Your task to perform on an android device: What's the news this afternoon? Image 0: 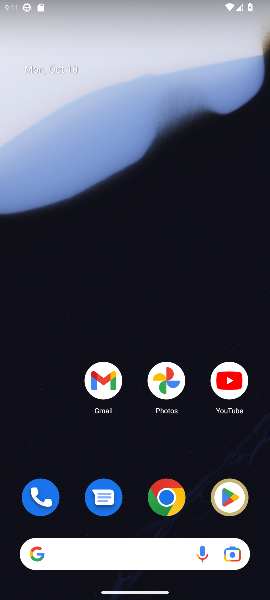
Step 0: drag from (125, 497) to (127, 132)
Your task to perform on an android device: What's the news this afternoon? Image 1: 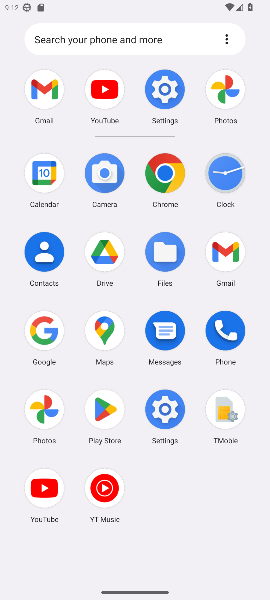
Step 1: click (37, 322)
Your task to perform on an android device: What's the news this afternoon? Image 2: 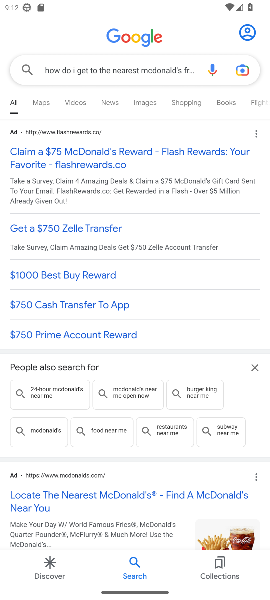
Step 2: click (150, 69)
Your task to perform on an android device: What's the news this afternoon? Image 3: 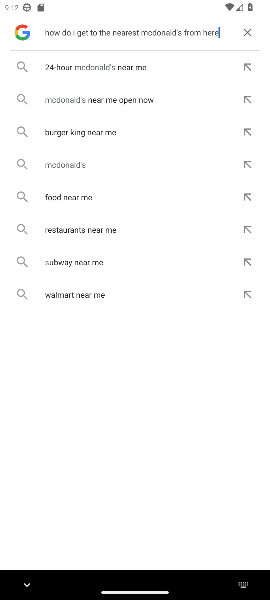
Step 3: click (247, 30)
Your task to perform on an android device: What's the news this afternoon? Image 4: 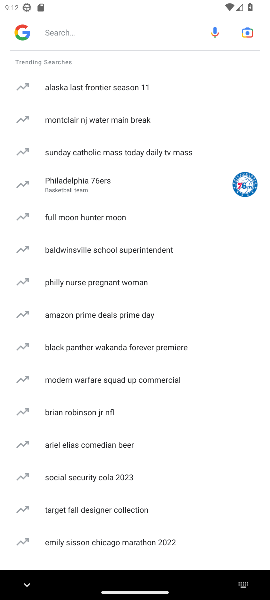
Step 4: click (99, 38)
Your task to perform on an android device: What's the news this afternoon? Image 5: 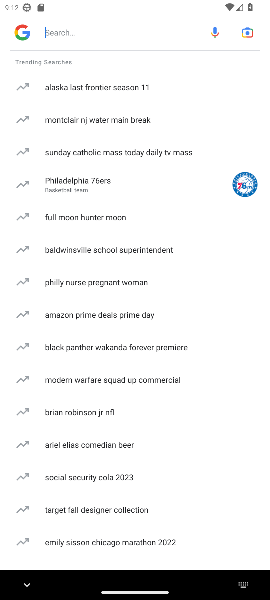
Step 5: click (99, 38)
Your task to perform on an android device: What's the news this afternoon? Image 6: 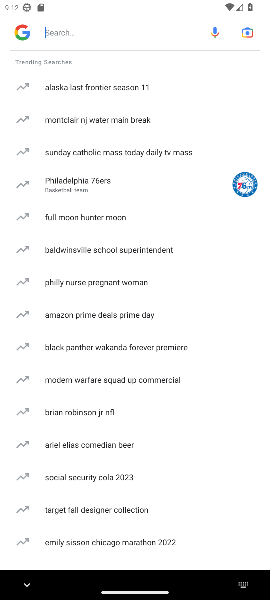
Step 6: type "What's the news this afternoon? "
Your task to perform on an android device: What's the news this afternoon? Image 7: 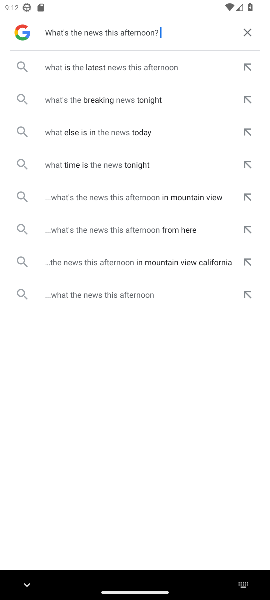
Step 7: click (111, 61)
Your task to perform on an android device: What's the news this afternoon? Image 8: 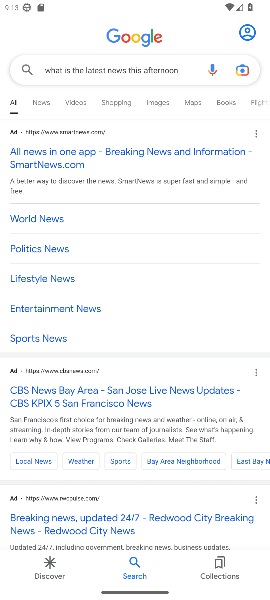
Step 8: click (112, 154)
Your task to perform on an android device: What's the news this afternoon? Image 9: 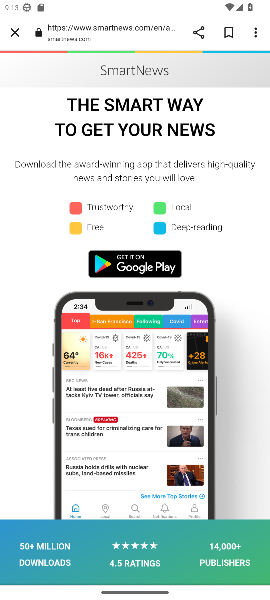
Step 9: drag from (178, 518) to (160, 223)
Your task to perform on an android device: What's the news this afternoon? Image 10: 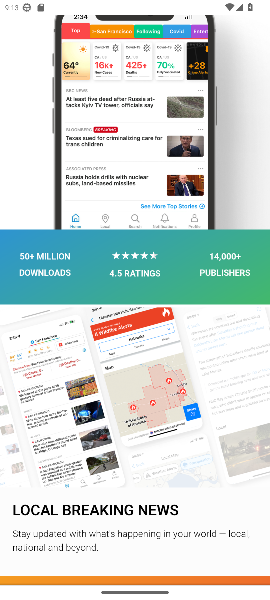
Step 10: drag from (157, 498) to (155, 215)
Your task to perform on an android device: What's the news this afternoon? Image 11: 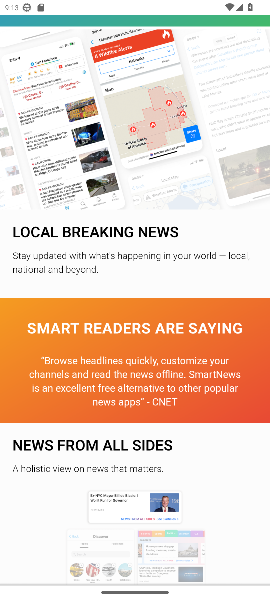
Step 11: drag from (166, 517) to (180, 270)
Your task to perform on an android device: What's the news this afternoon? Image 12: 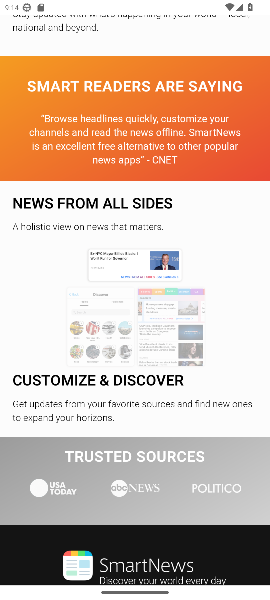
Step 12: press back button
Your task to perform on an android device: What's the news this afternoon? Image 13: 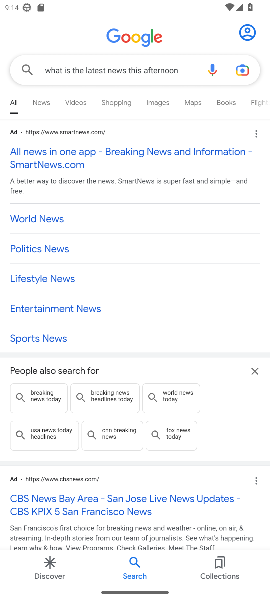
Step 13: click (75, 501)
Your task to perform on an android device: What's the news this afternoon? Image 14: 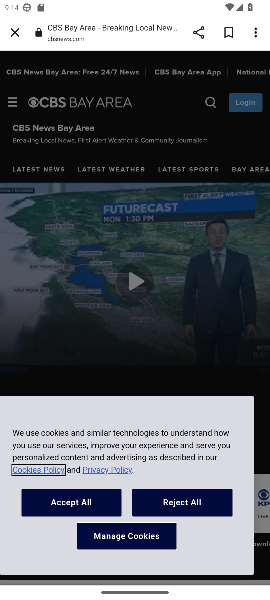
Step 14: click (88, 499)
Your task to perform on an android device: What's the news this afternoon? Image 15: 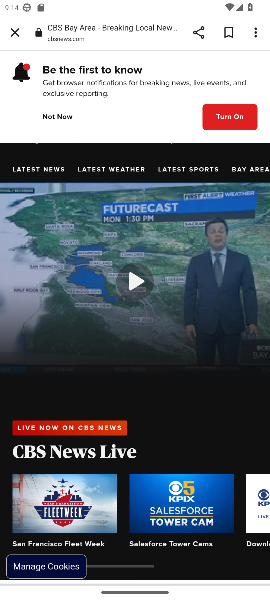
Step 15: task complete